Your task to perform on an android device: Search for "custom wallet" on Etsy. Image 0: 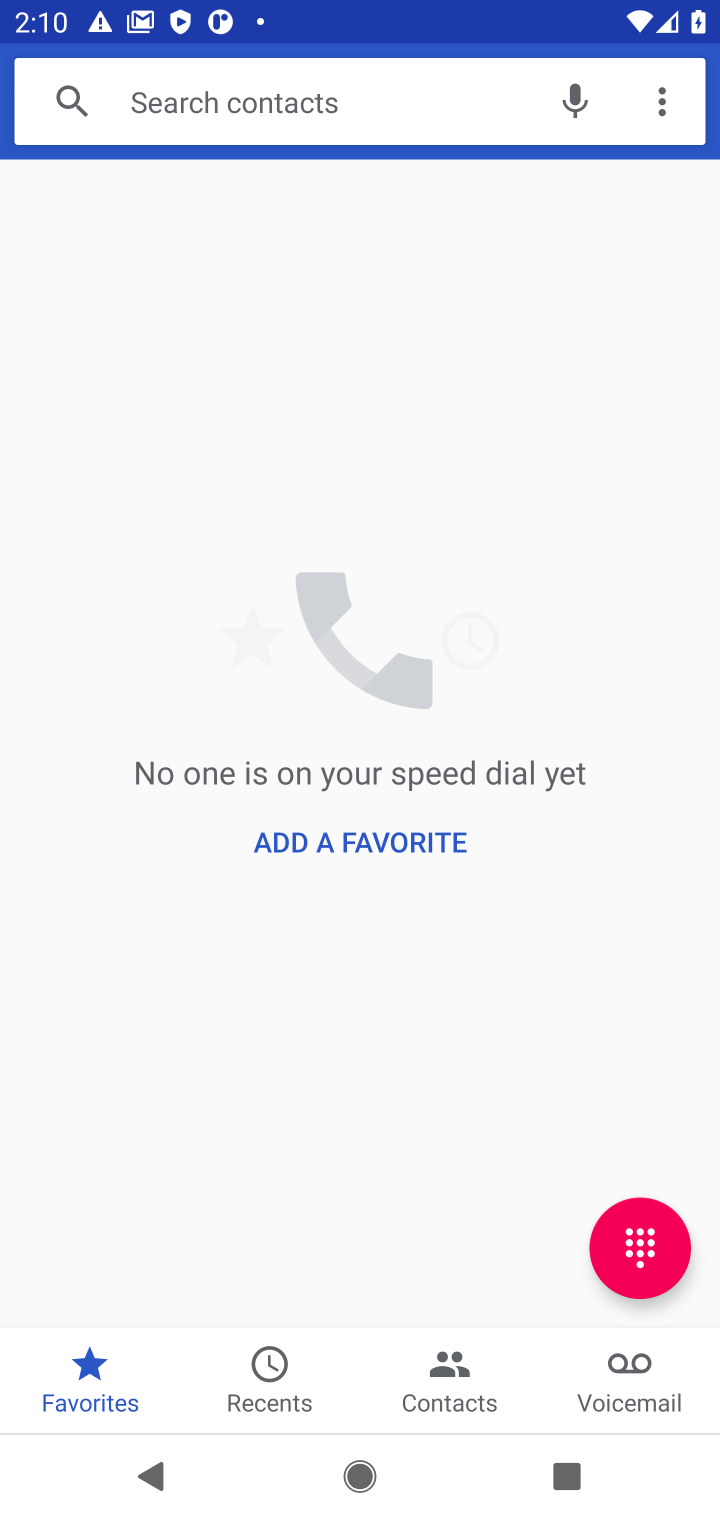
Step 0: press home button
Your task to perform on an android device: Search for "custom wallet" on Etsy. Image 1: 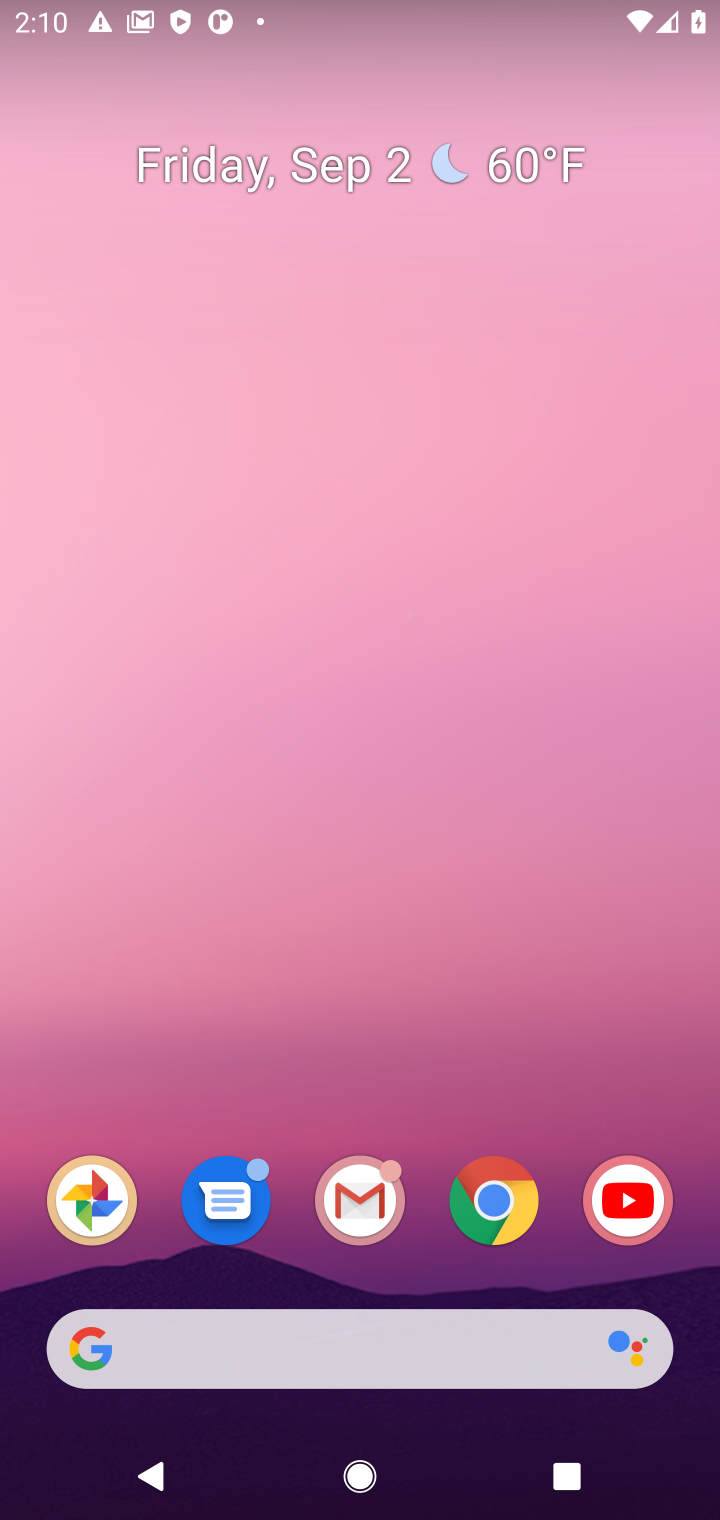
Step 1: click (490, 1201)
Your task to perform on an android device: Search for "custom wallet" on Etsy. Image 2: 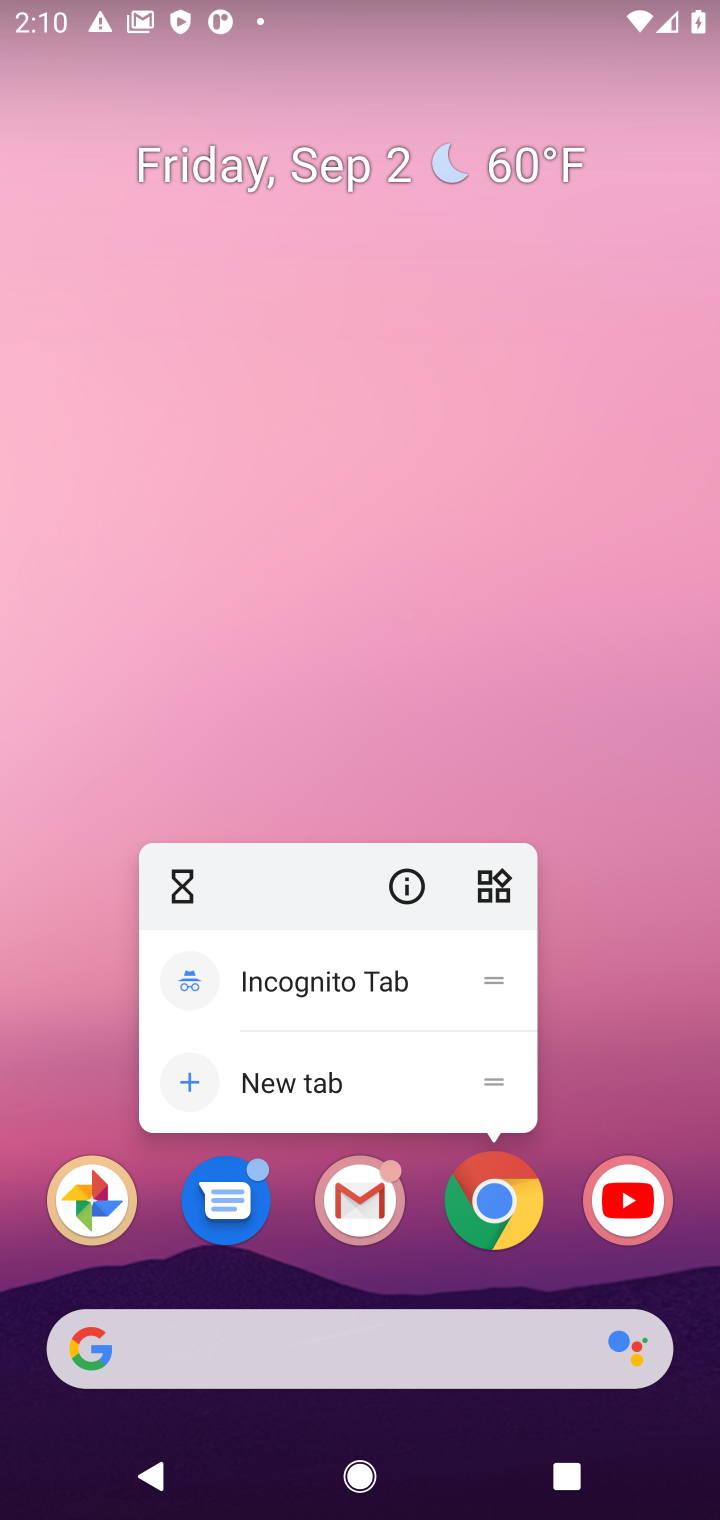
Step 2: click (490, 1203)
Your task to perform on an android device: Search for "custom wallet" on Etsy. Image 3: 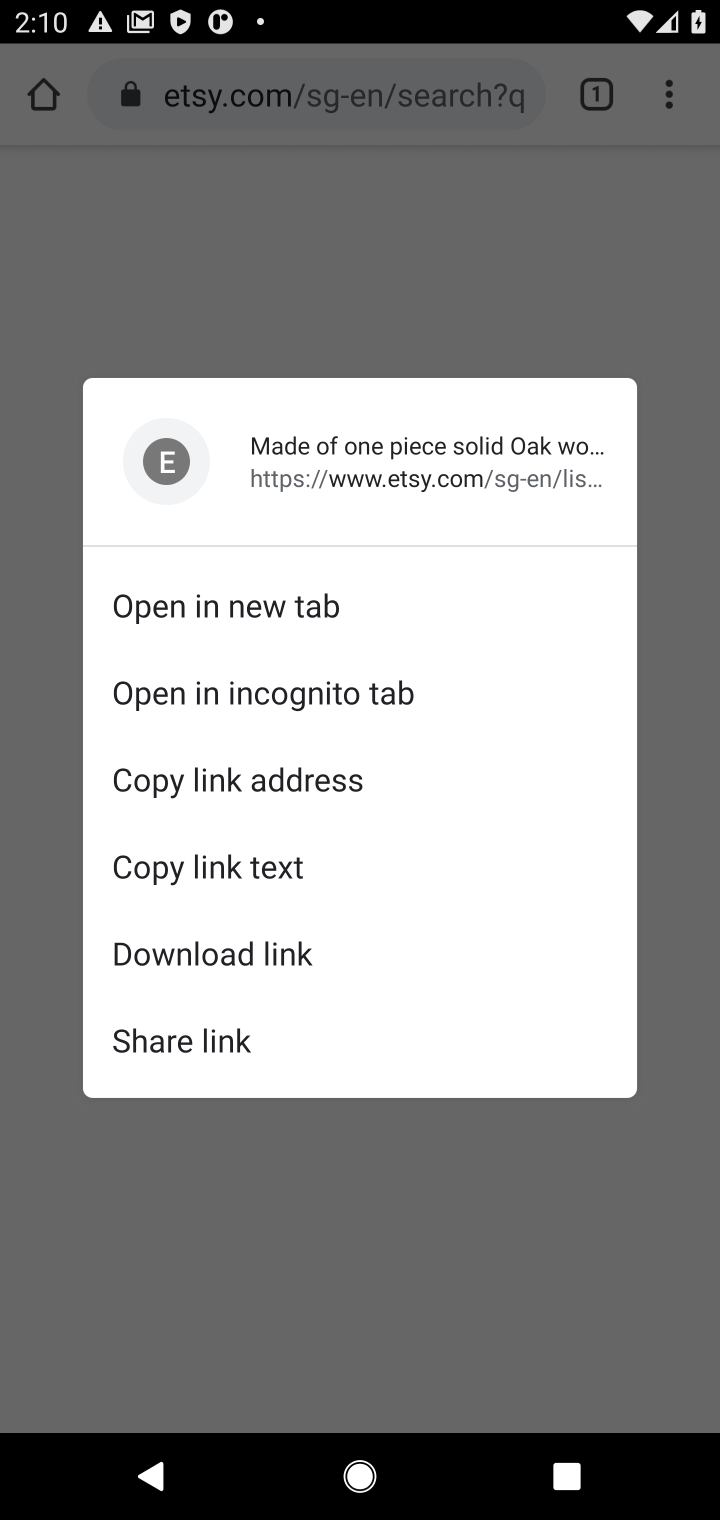
Step 3: click (511, 295)
Your task to perform on an android device: Search for "custom wallet" on Etsy. Image 4: 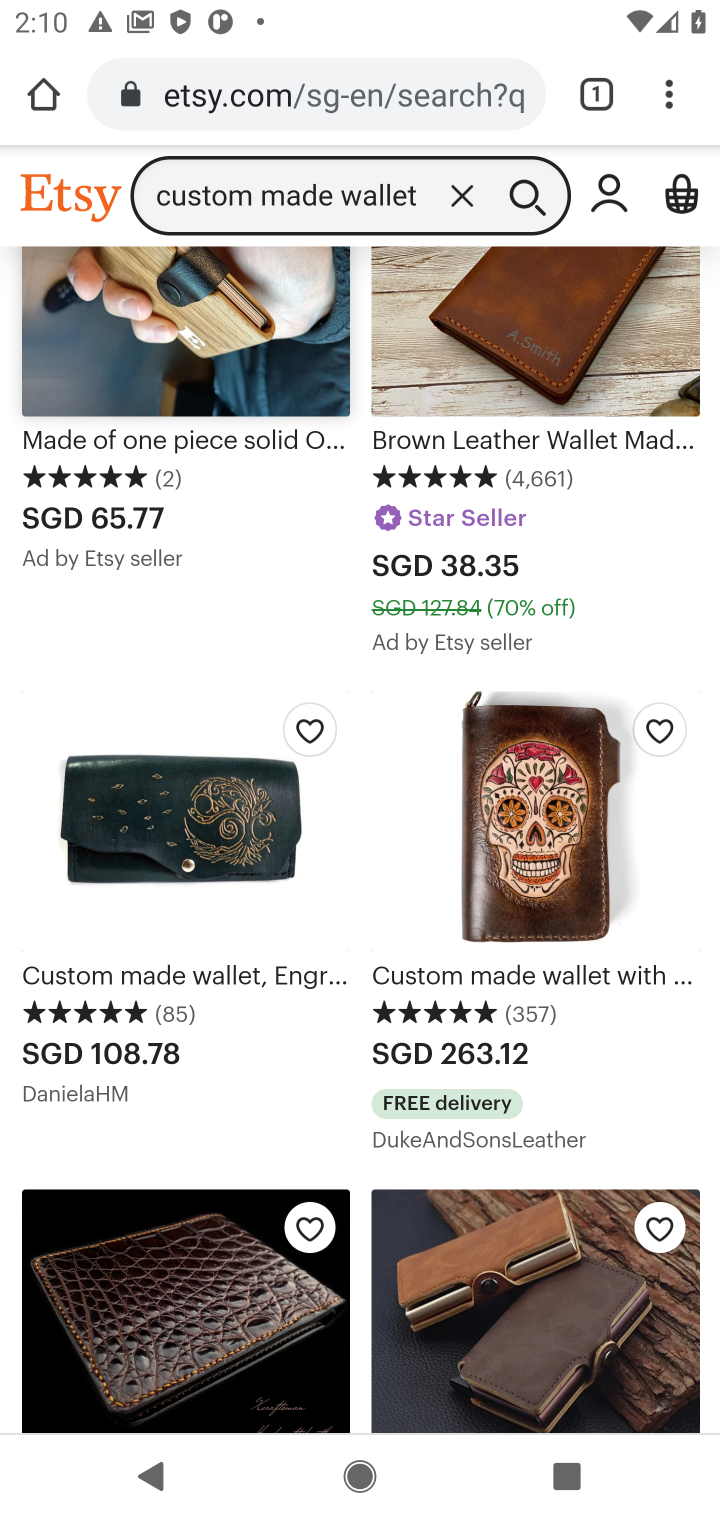
Step 4: drag from (464, 549) to (414, 1220)
Your task to perform on an android device: Search for "custom wallet" on Etsy. Image 5: 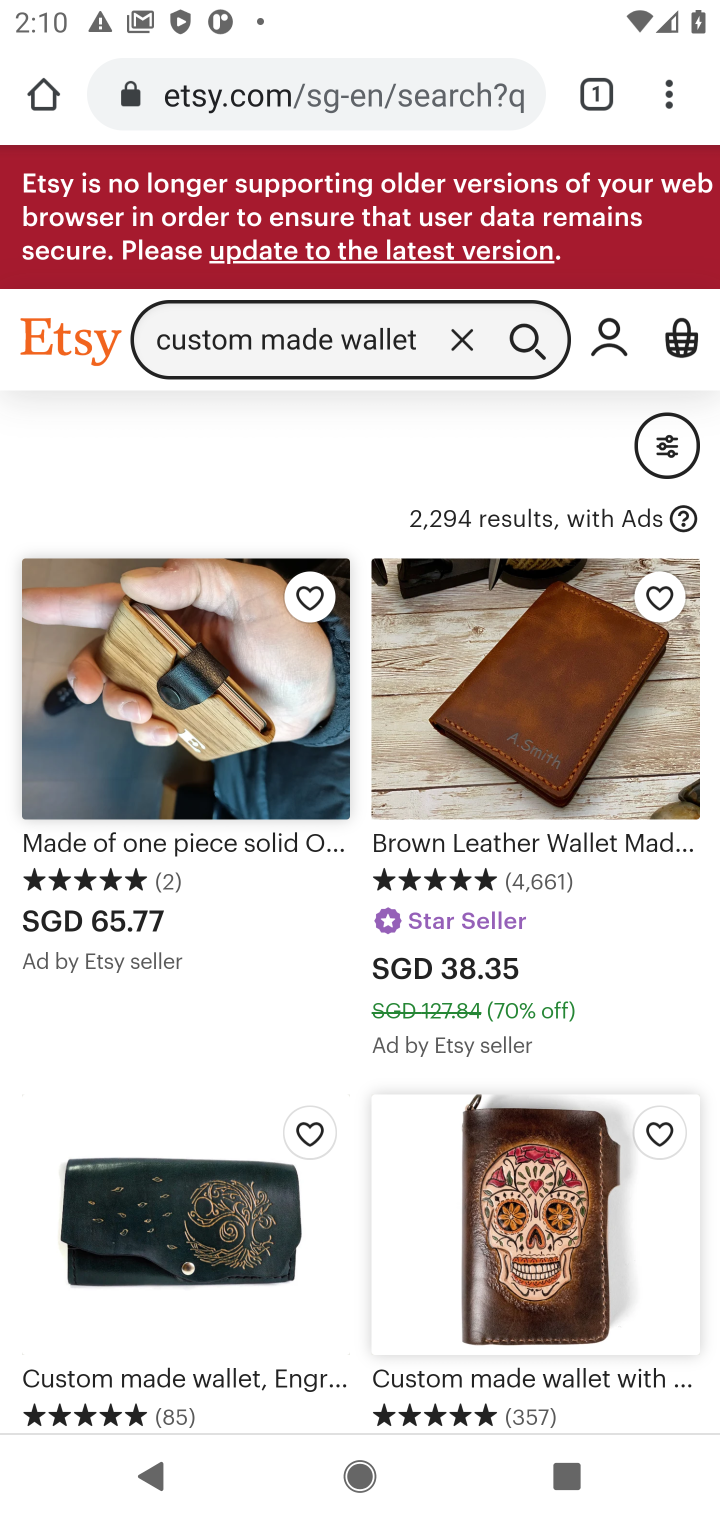
Step 5: click (461, 332)
Your task to perform on an android device: Search for "custom wallet" on Etsy. Image 6: 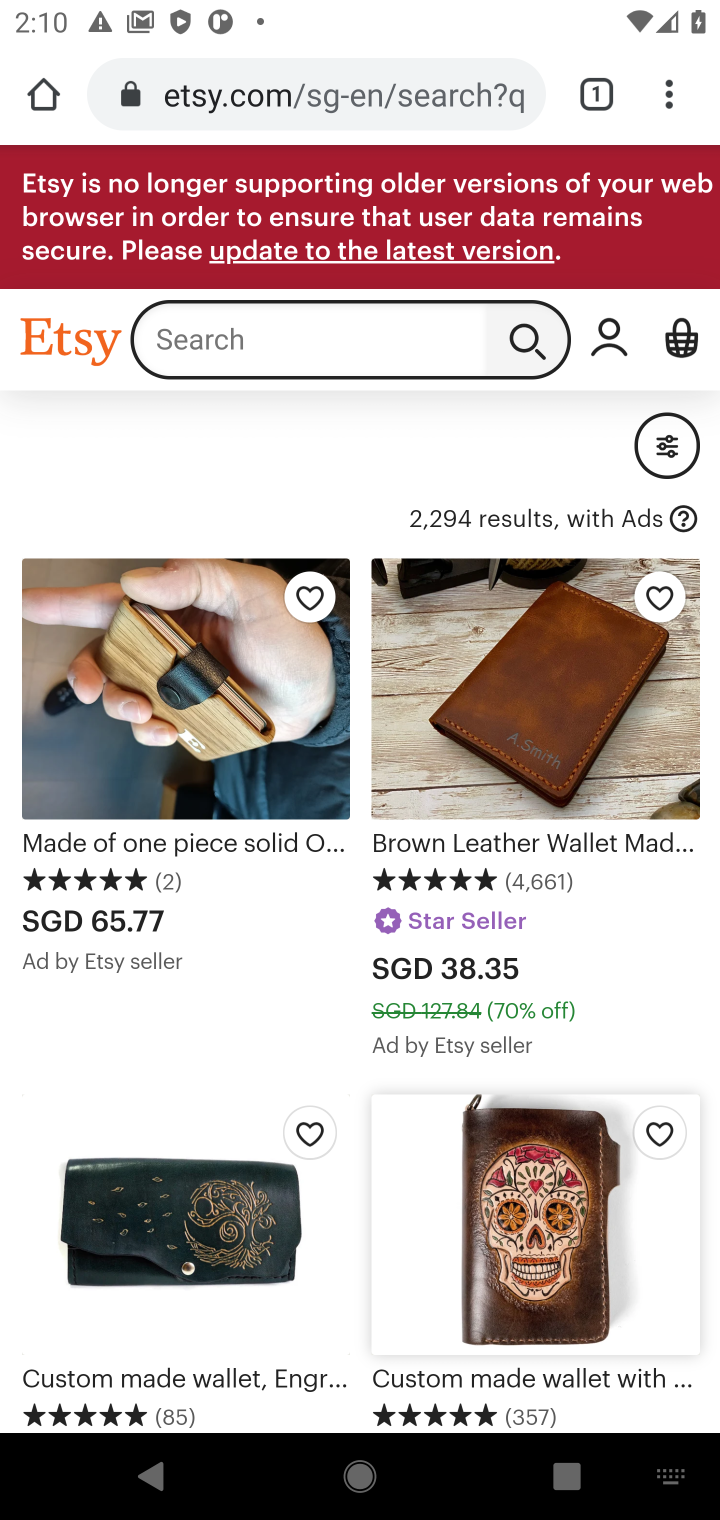
Step 6: click (427, 322)
Your task to perform on an android device: Search for "custom wallet" on Etsy. Image 7: 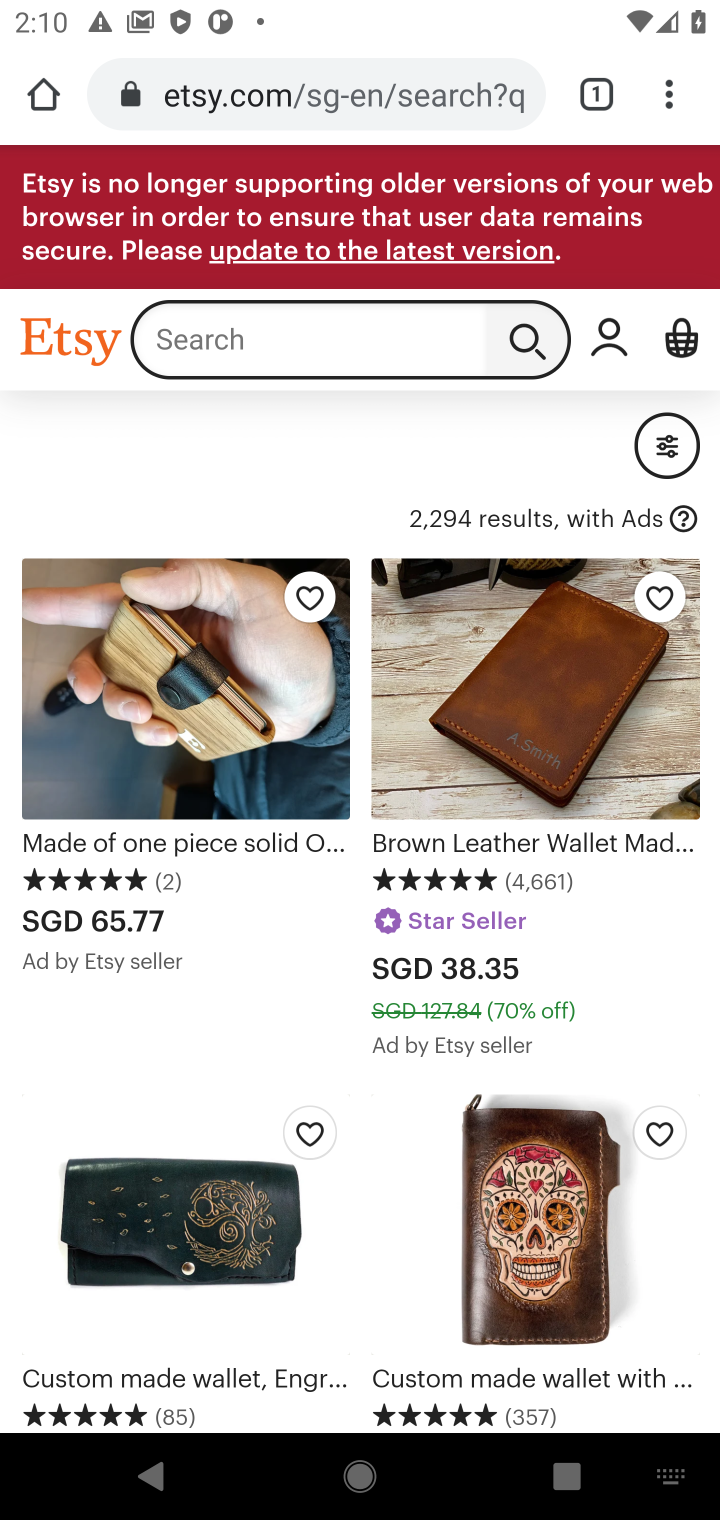
Step 7: click (361, 346)
Your task to perform on an android device: Search for "custom wallet" on Etsy. Image 8: 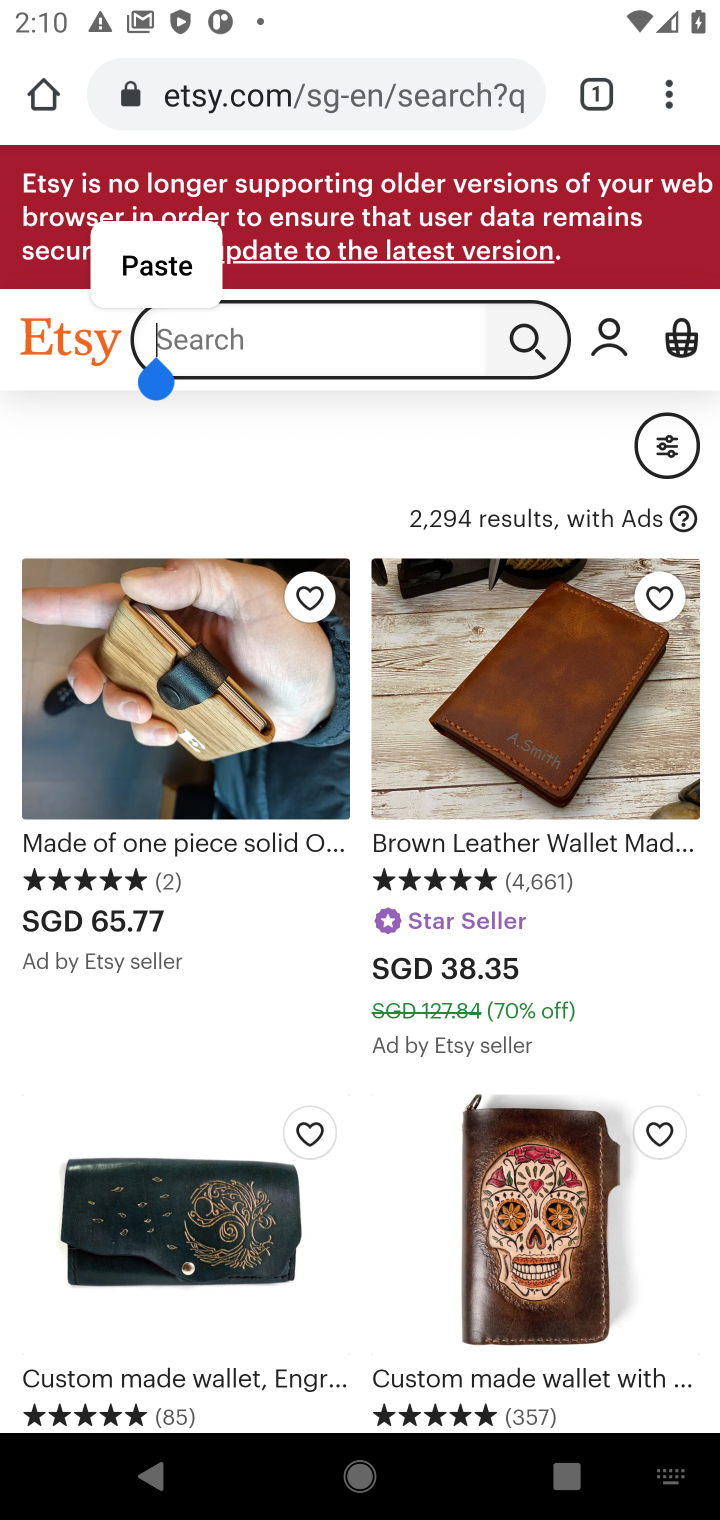
Step 8: click (356, 339)
Your task to perform on an android device: Search for "custom wallet" on Etsy. Image 9: 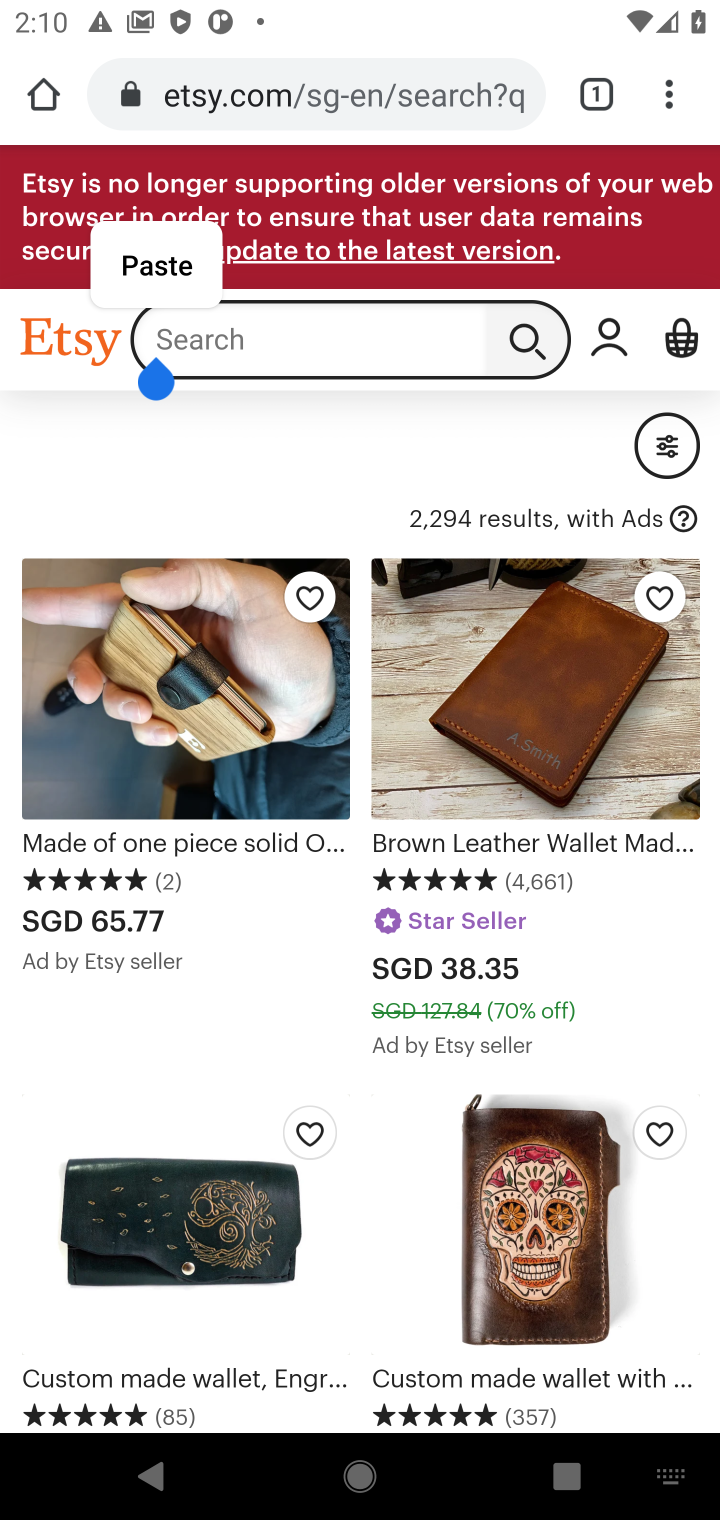
Step 9: click (356, 339)
Your task to perform on an android device: Search for "custom wallet" on Etsy. Image 10: 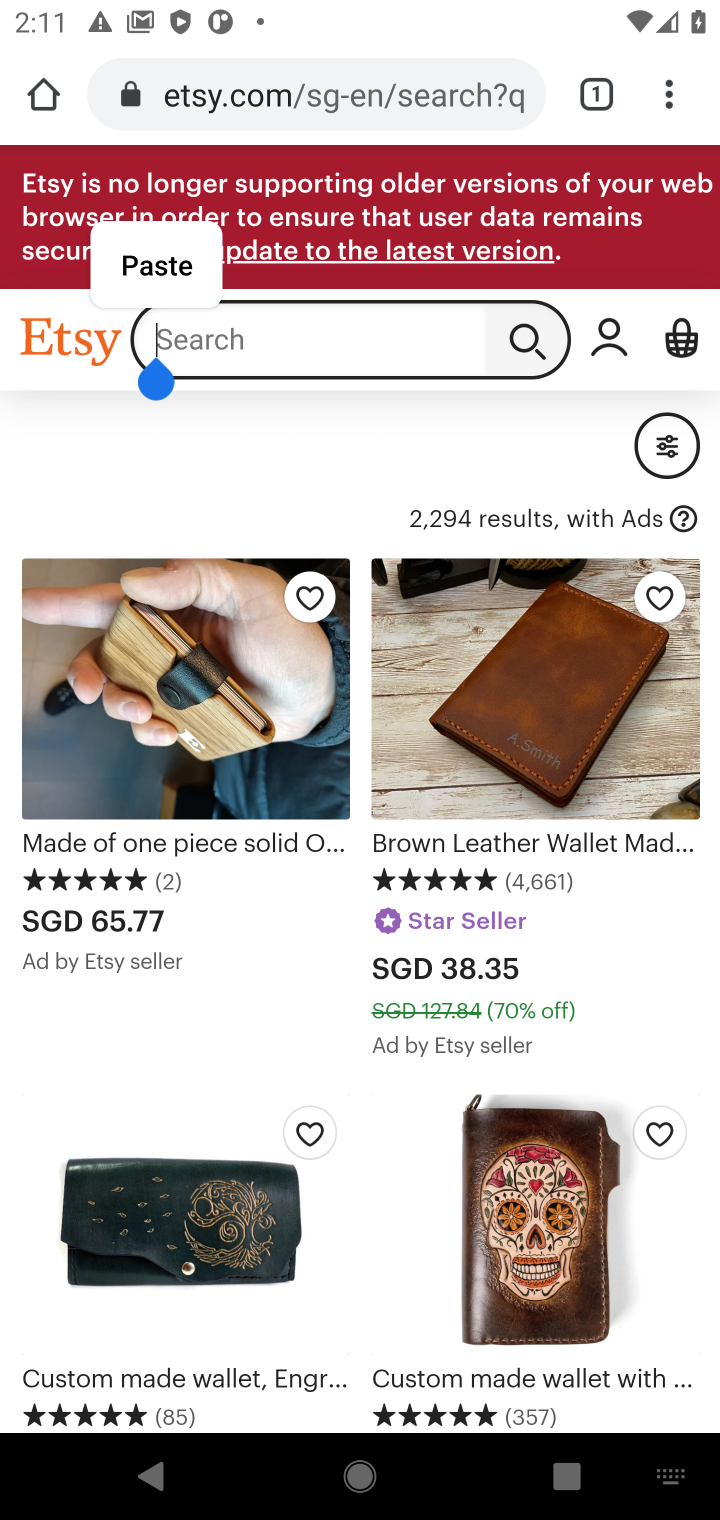
Step 10: press enter
Your task to perform on an android device: Search for "custom wallet" on Etsy. Image 11: 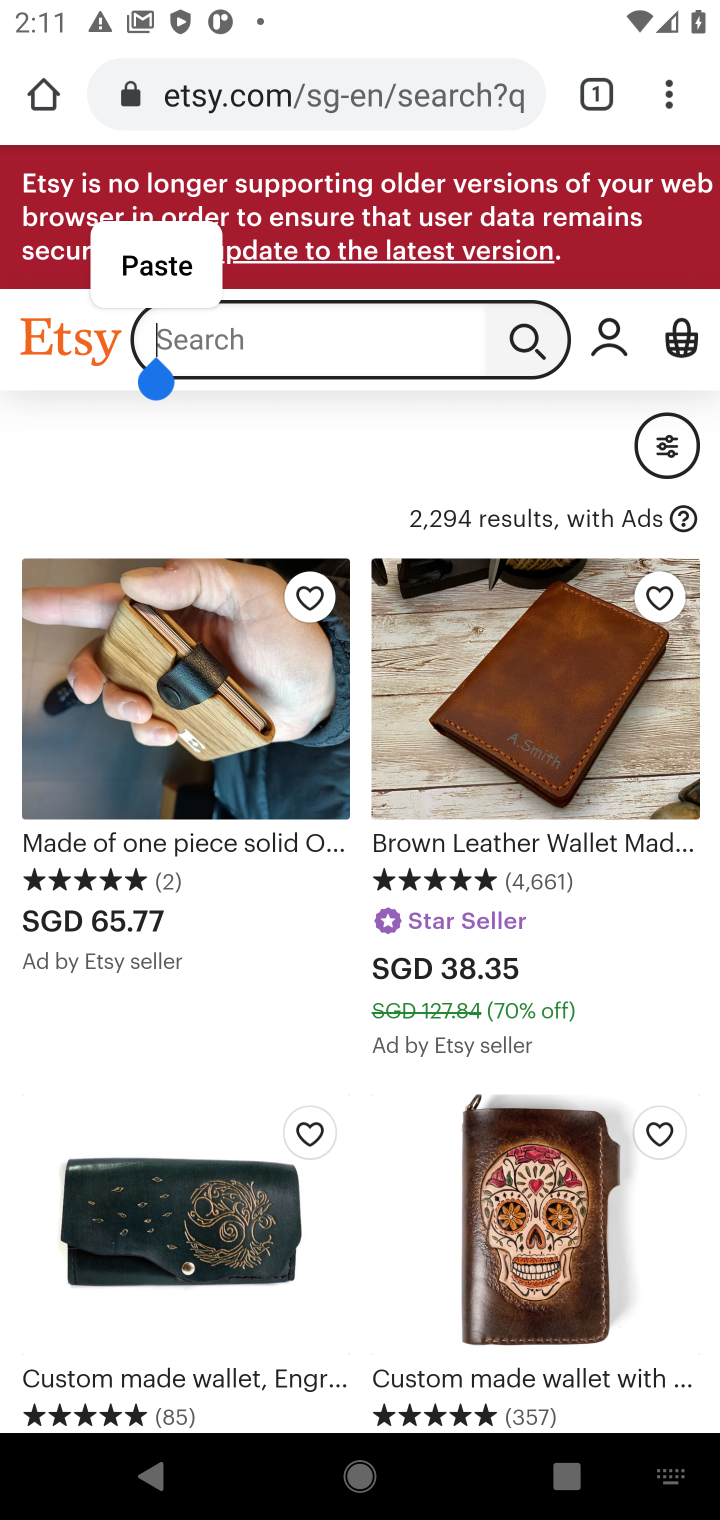
Step 11: type "custom wallet"
Your task to perform on an android device: Search for "custom wallet" on Etsy. Image 12: 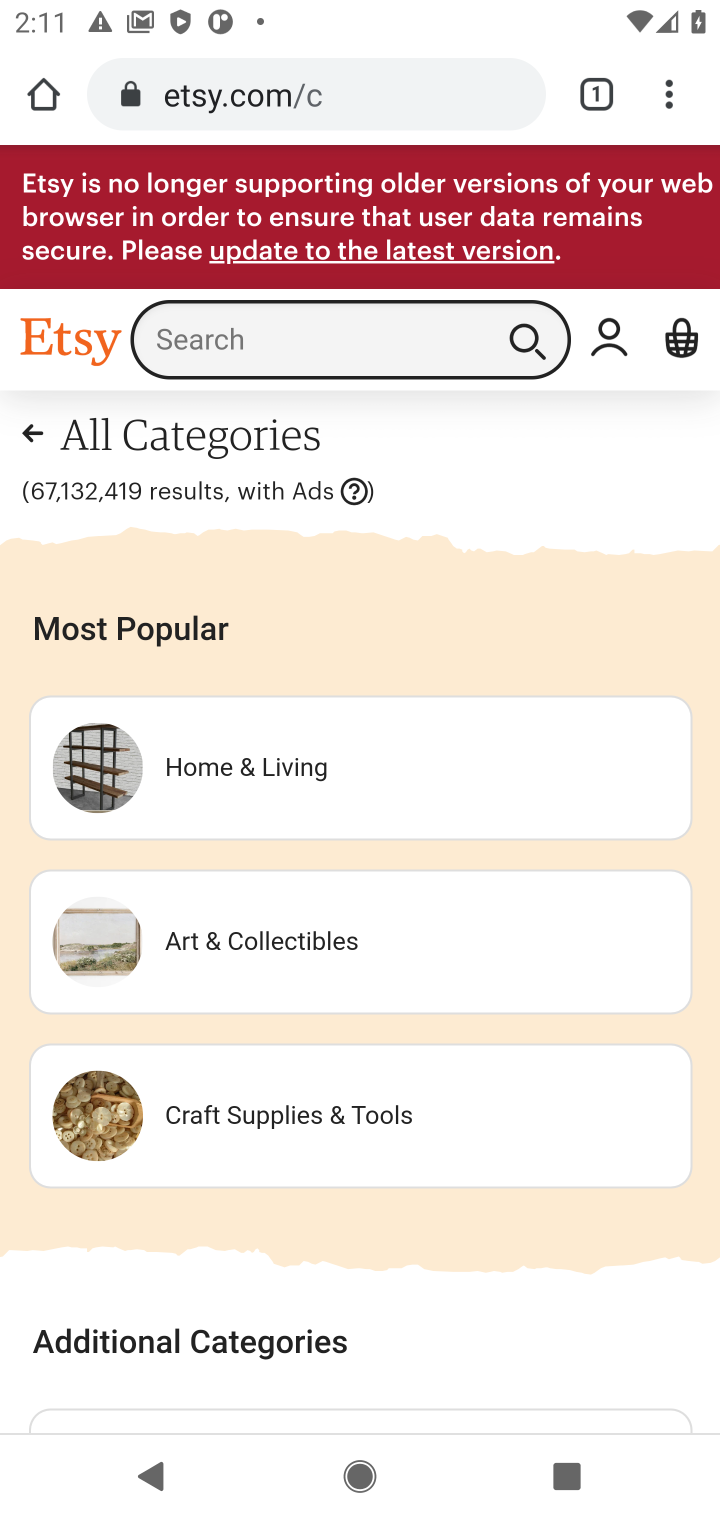
Step 12: click (255, 335)
Your task to perform on an android device: Search for "custom wallet" on Etsy. Image 13: 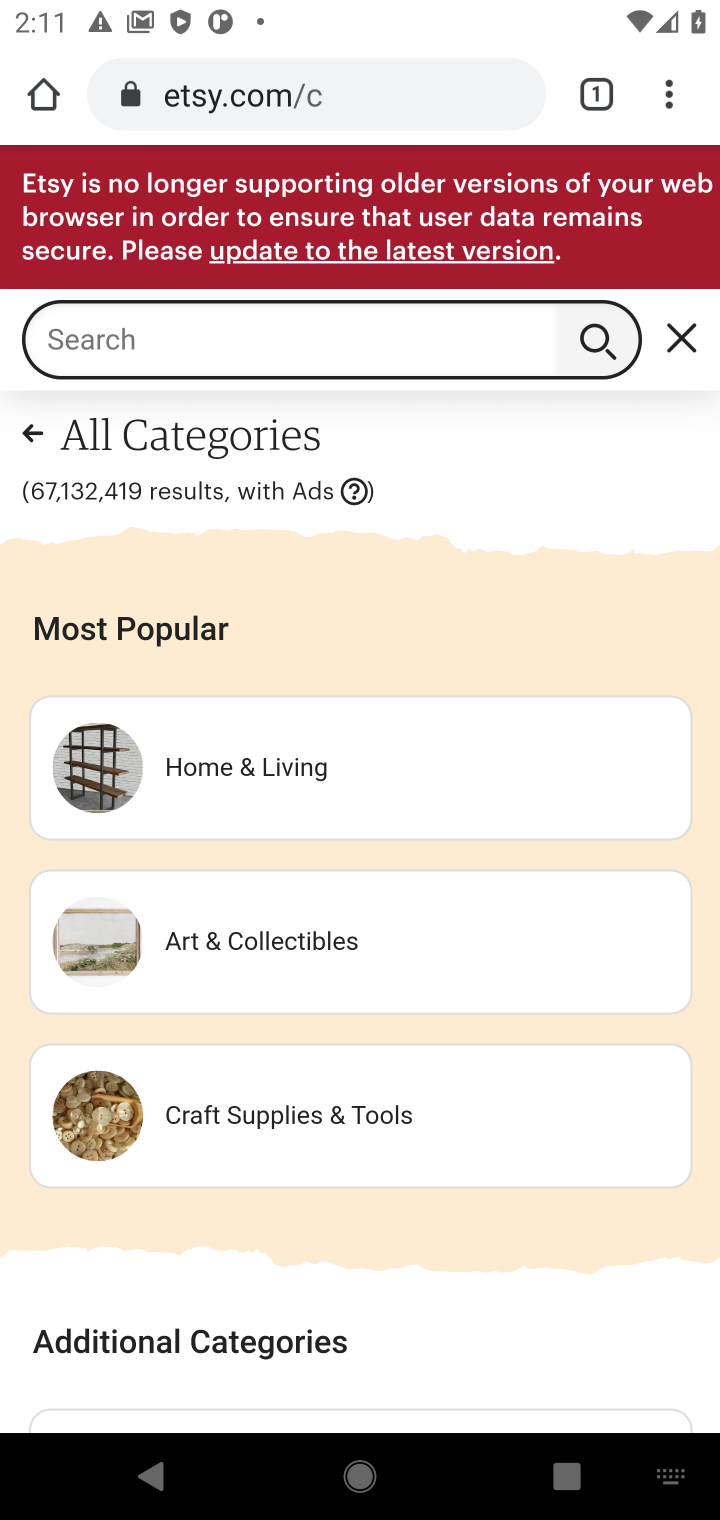
Step 13: type "custom wallet"
Your task to perform on an android device: Search for "custom wallet" on Etsy. Image 14: 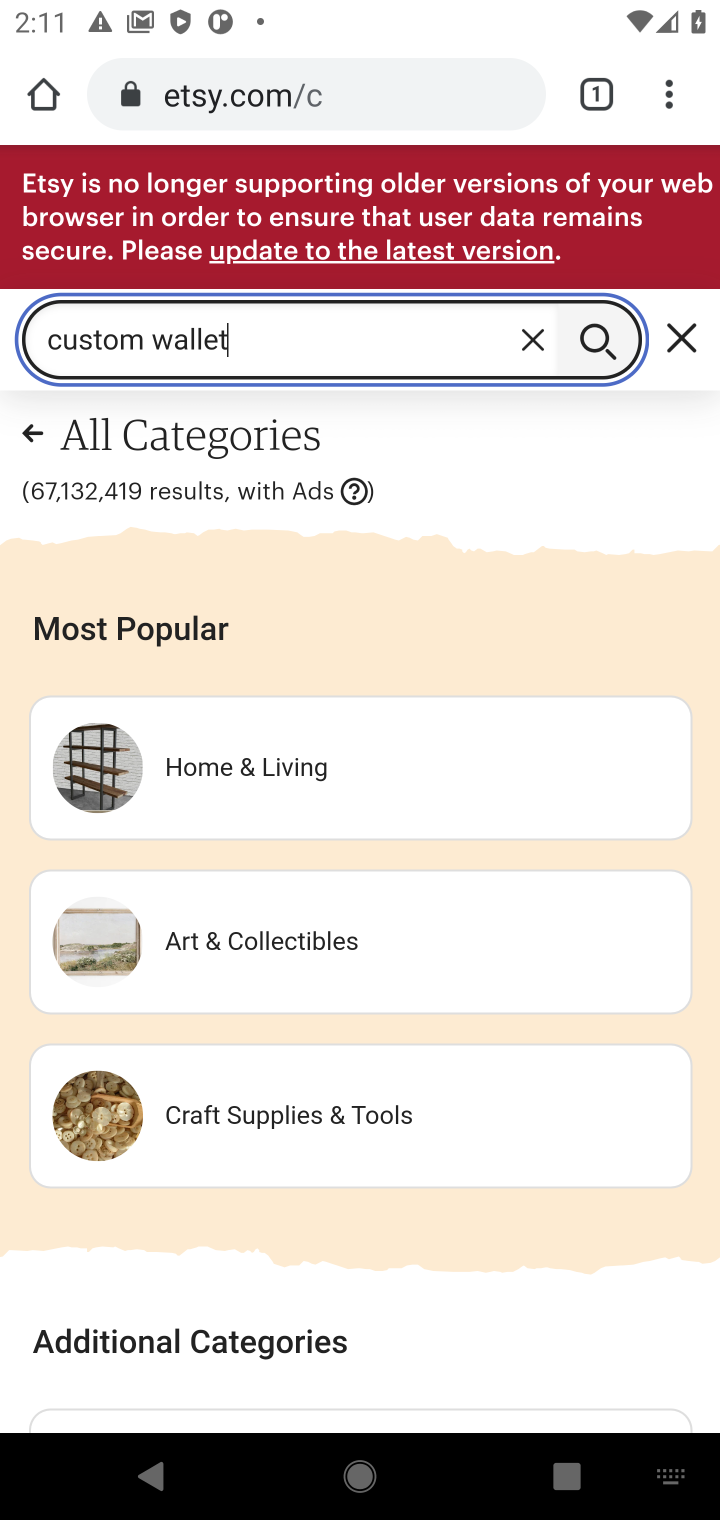
Step 14: press enter
Your task to perform on an android device: Search for "custom wallet" on Etsy. Image 15: 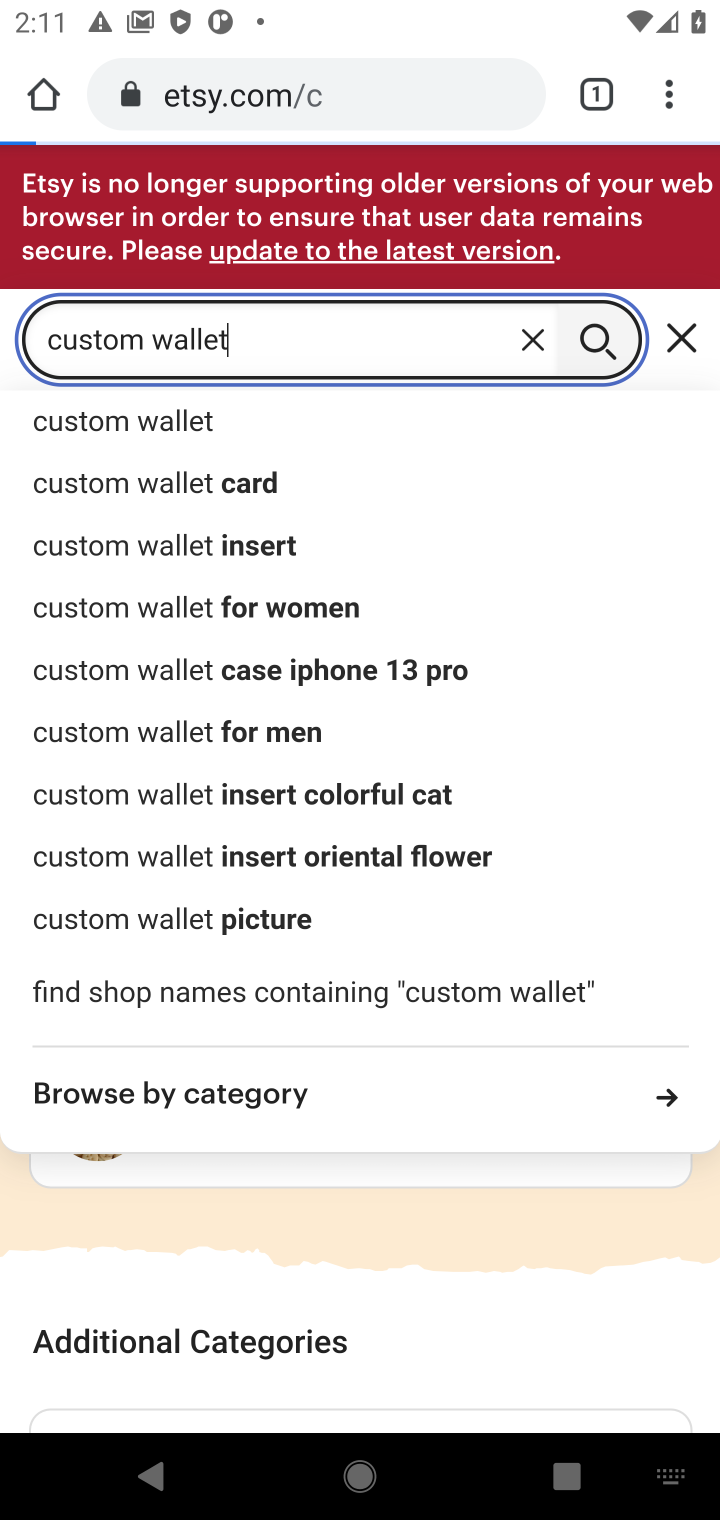
Step 15: click (589, 347)
Your task to perform on an android device: Search for "custom wallet" on Etsy. Image 16: 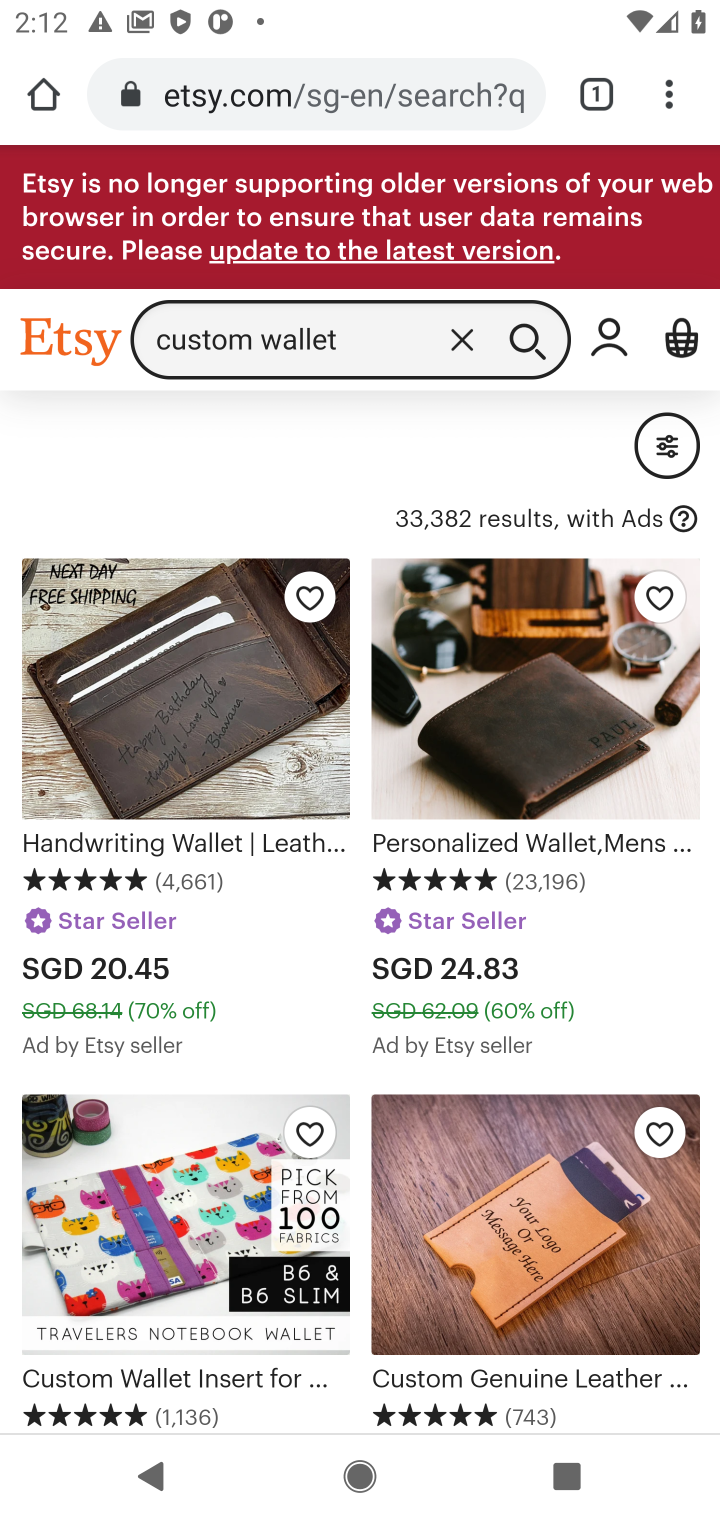
Step 16: task complete